Your task to perform on an android device: Go to wifi settings Image 0: 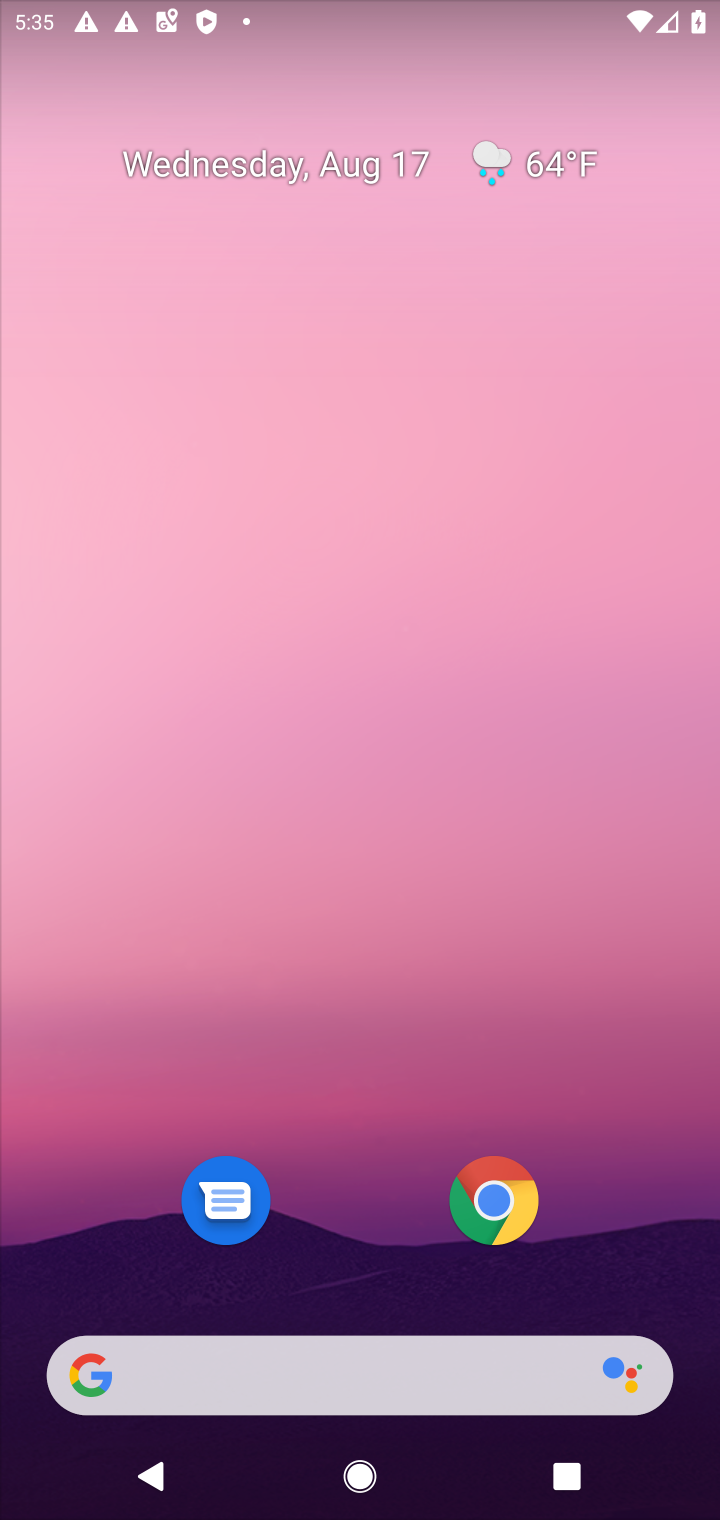
Step 0: drag from (341, 1319) to (362, 174)
Your task to perform on an android device: Go to wifi settings Image 1: 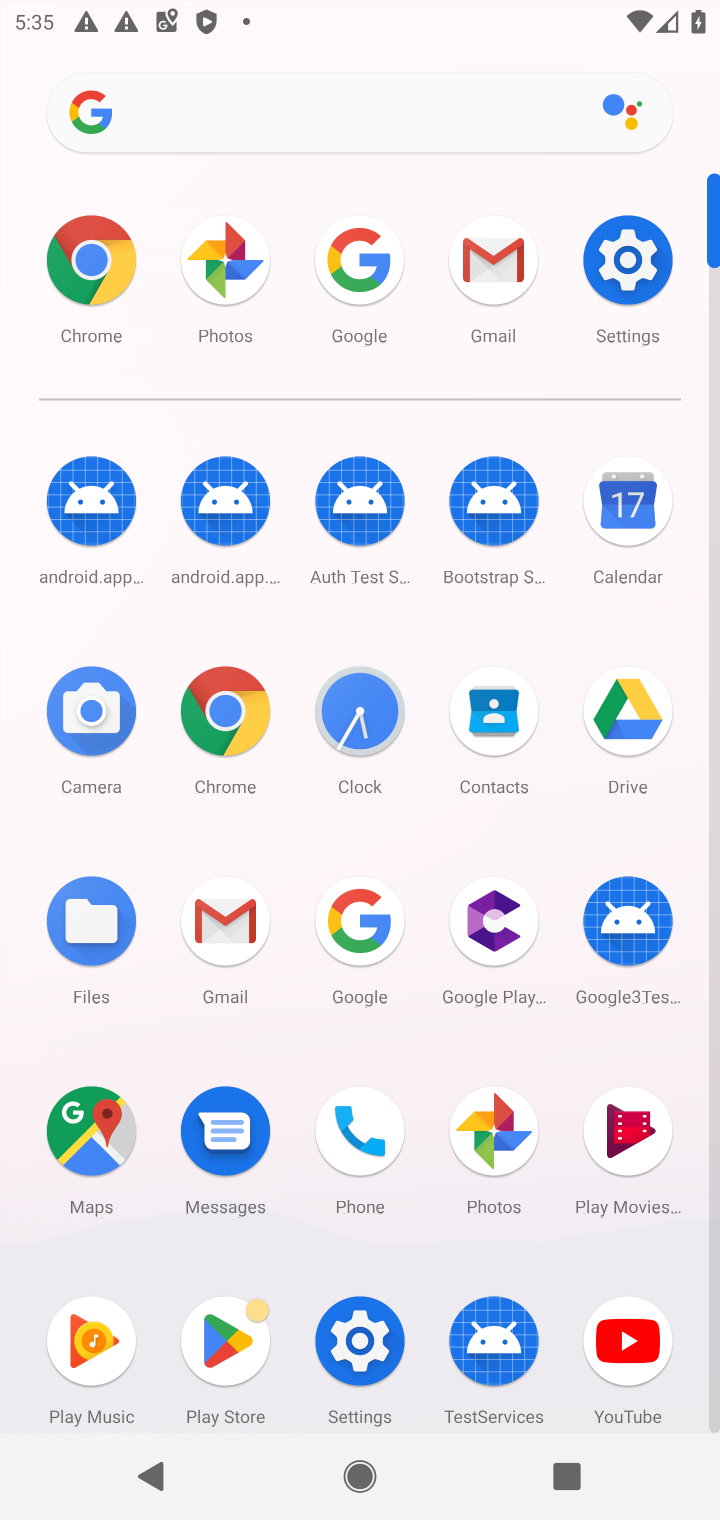
Step 1: click (630, 264)
Your task to perform on an android device: Go to wifi settings Image 2: 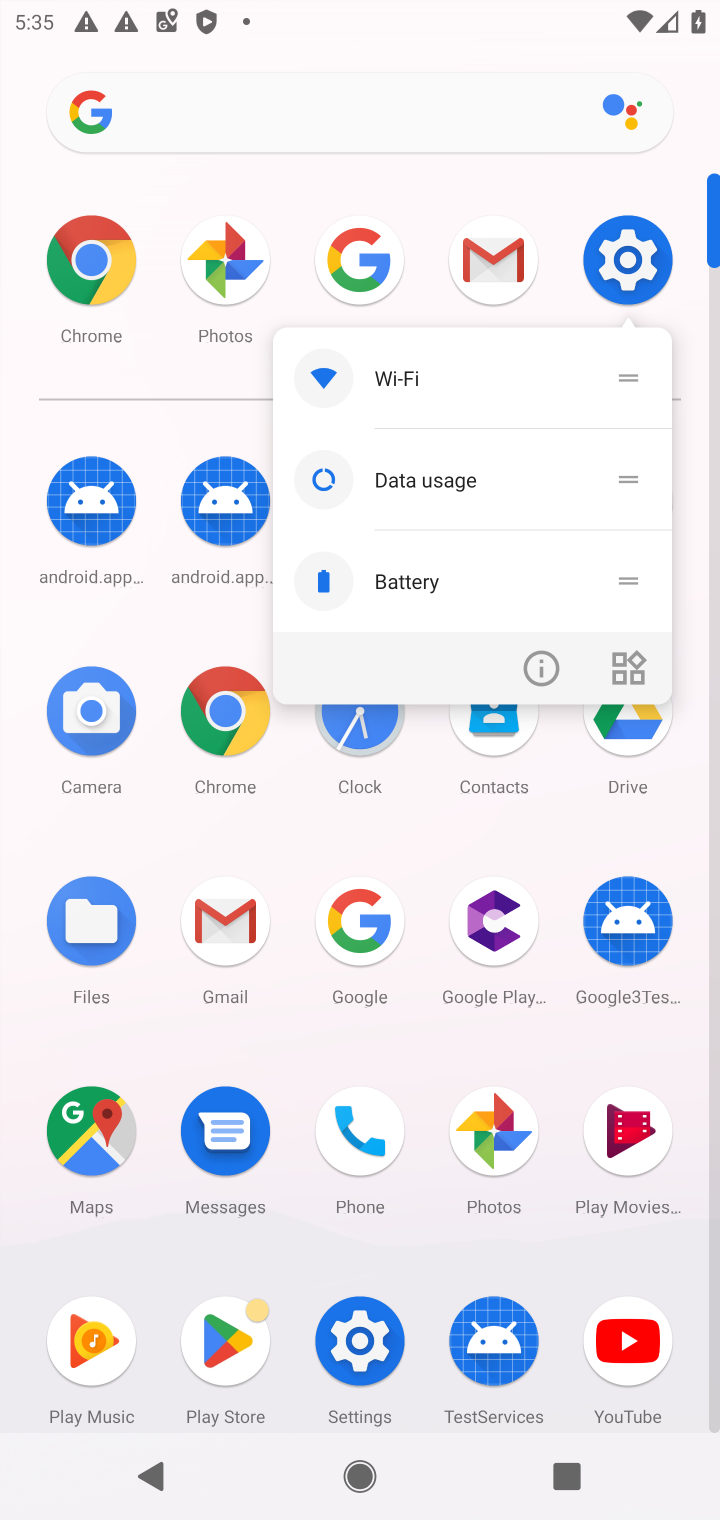
Step 2: click (620, 258)
Your task to perform on an android device: Go to wifi settings Image 3: 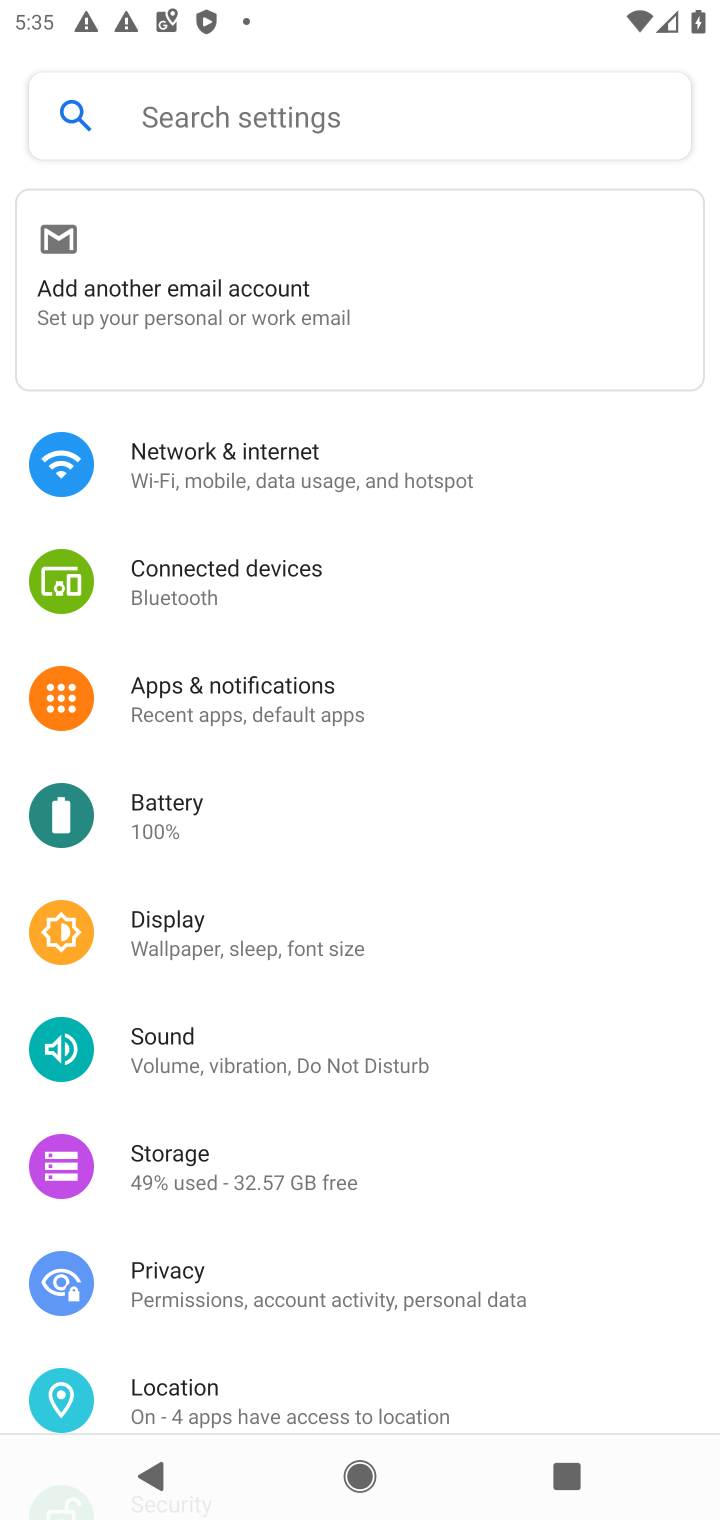
Step 3: click (228, 457)
Your task to perform on an android device: Go to wifi settings Image 4: 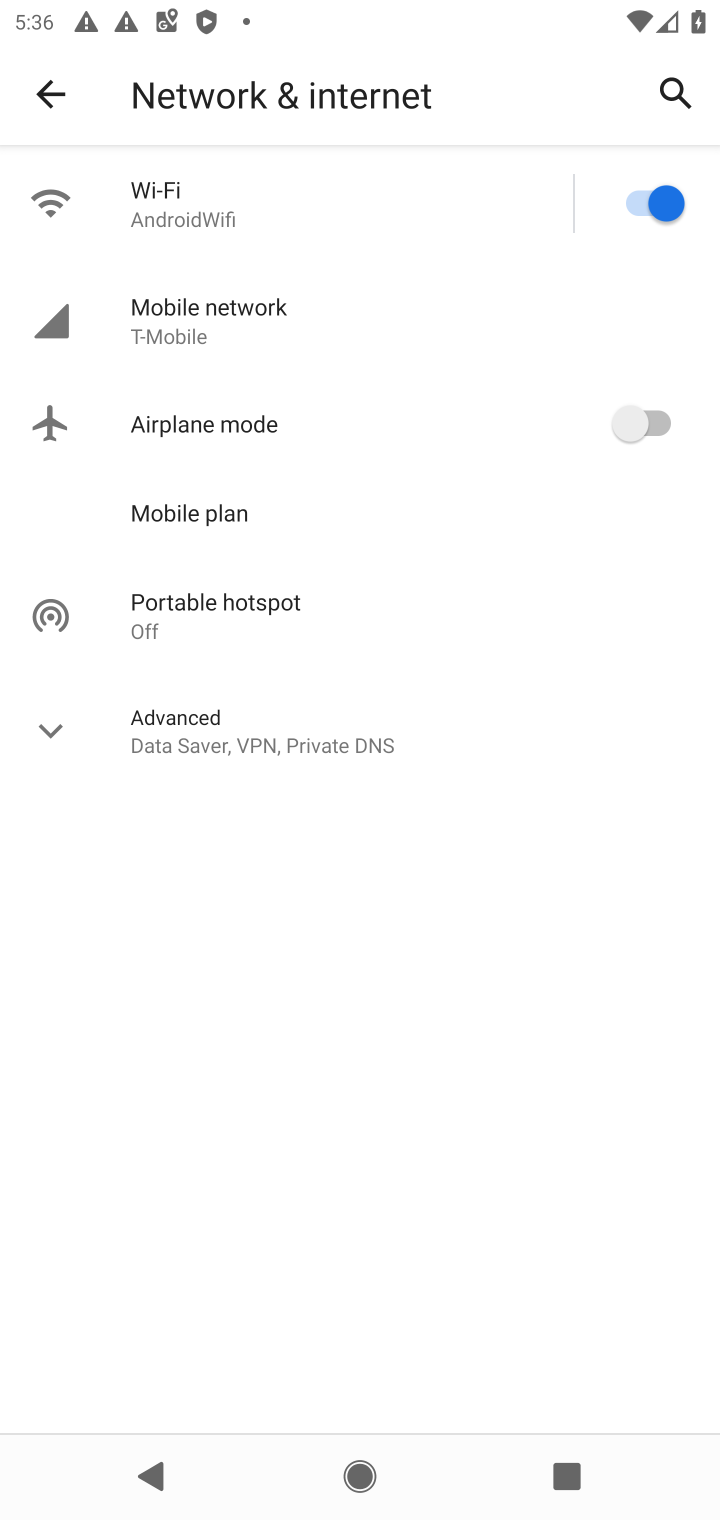
Step 4: click (171, 196)
Your task to perform on an android device: Go to wifi settings Image 5: 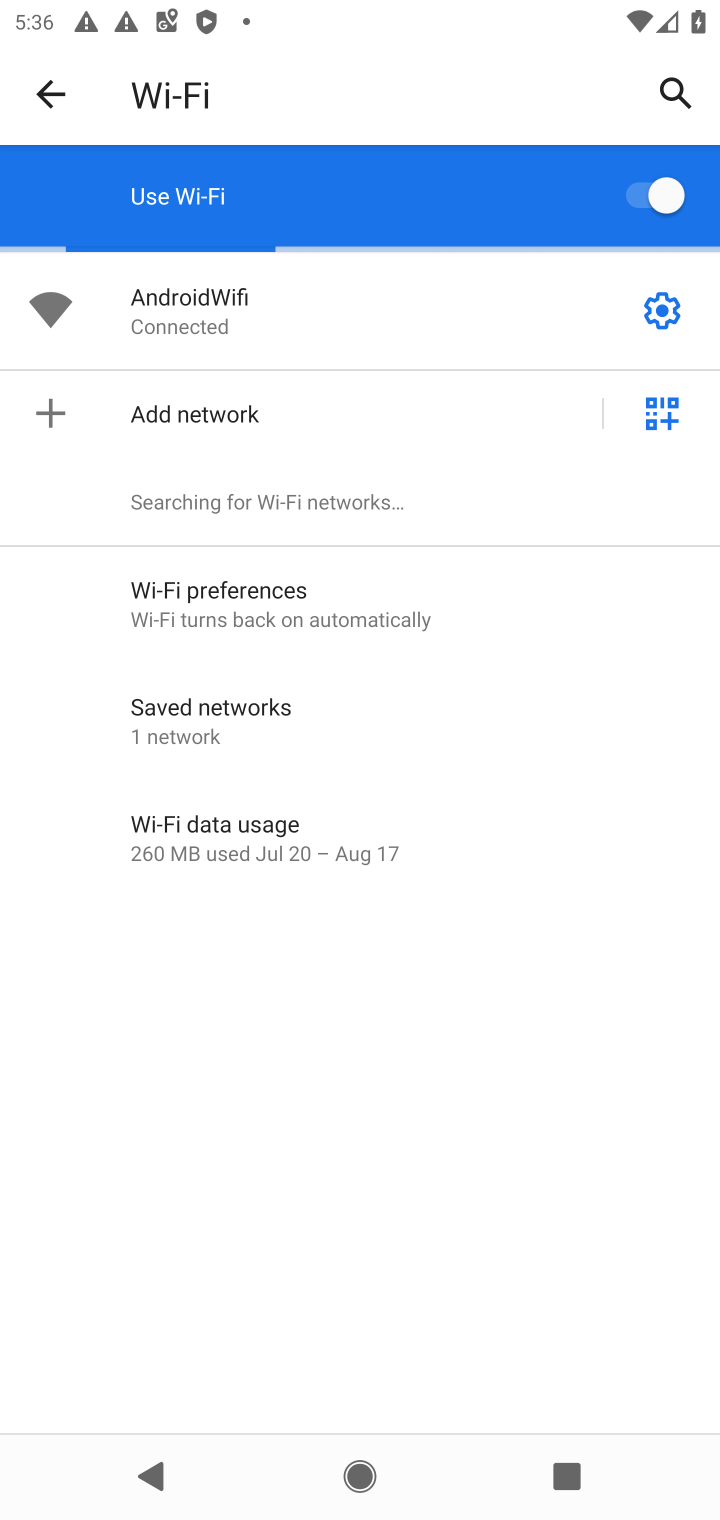
Step 5: task complete